Your task to perform on an android device: Empty the shopping cart on costco. Search for macbook air on costco, select the first entry, and add it to the cart. Image 0: 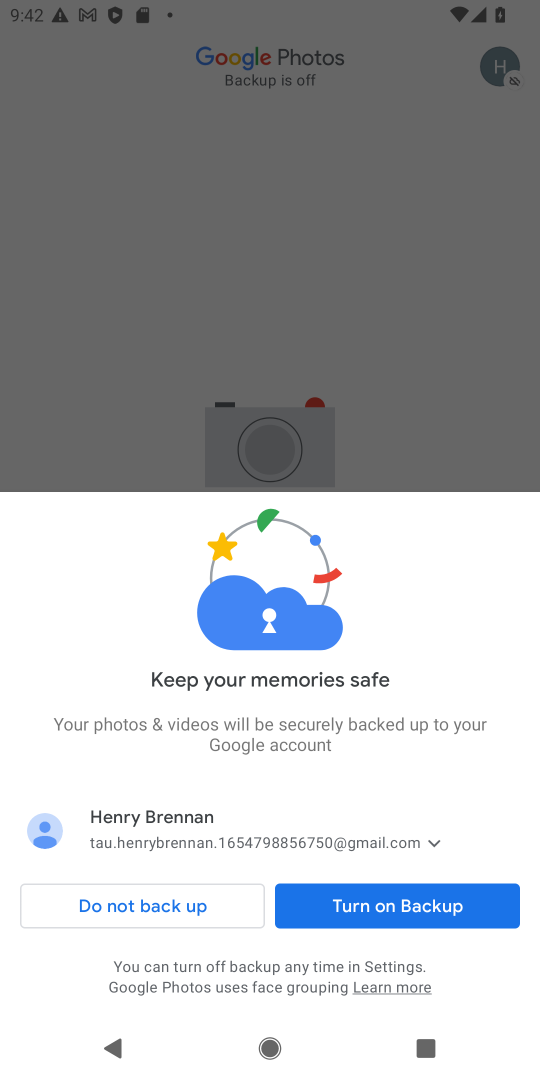
Step 0: press home button
Your task to perform on an android device: Empty the shopping cart on costco. Search for macbook air on costco, select the first entry, and add it to the cart. Image 1: 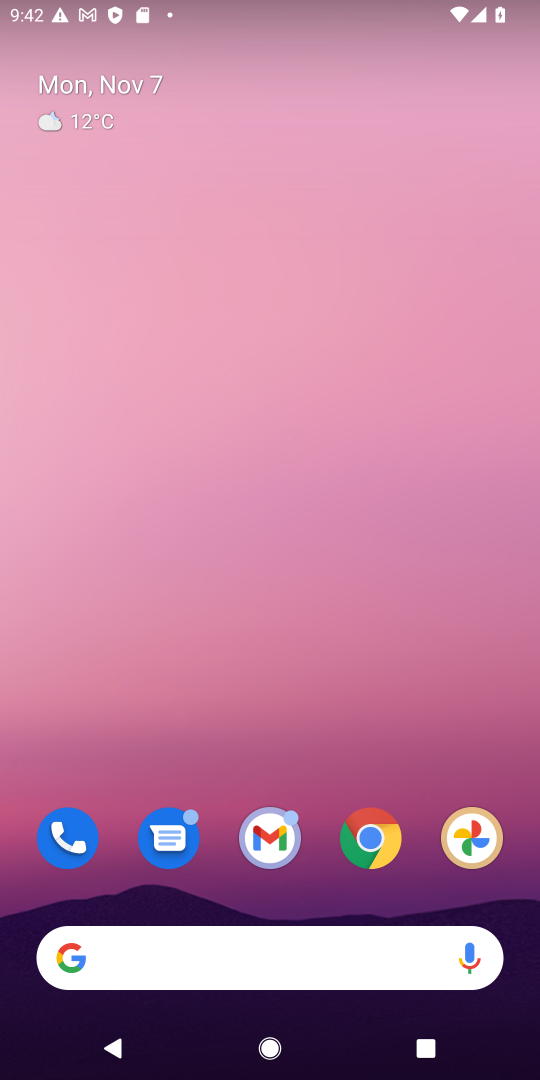
Step 1: click (354, 843)
Your task to perform on an android device: Empty the shopping cart on costco. Search for macbook air on costco, select the first entry, and add it to the cart. Image 2: 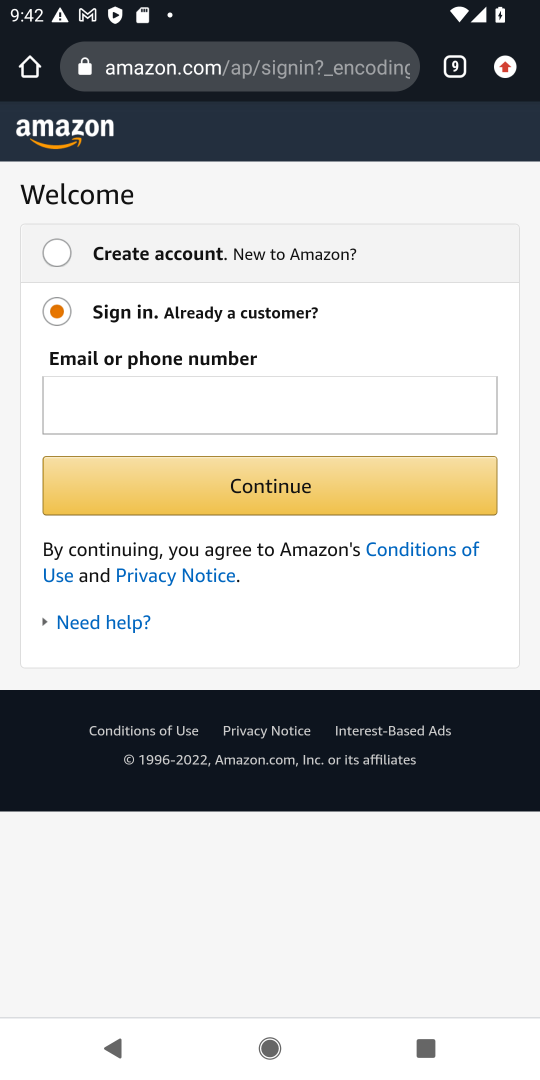
Step 2: click (453, 74)
Your task to perform on an android device: Empty the shopping cart on costco. Search for macbook air on costco, select the first entry, and add it to the cart. Image 3: 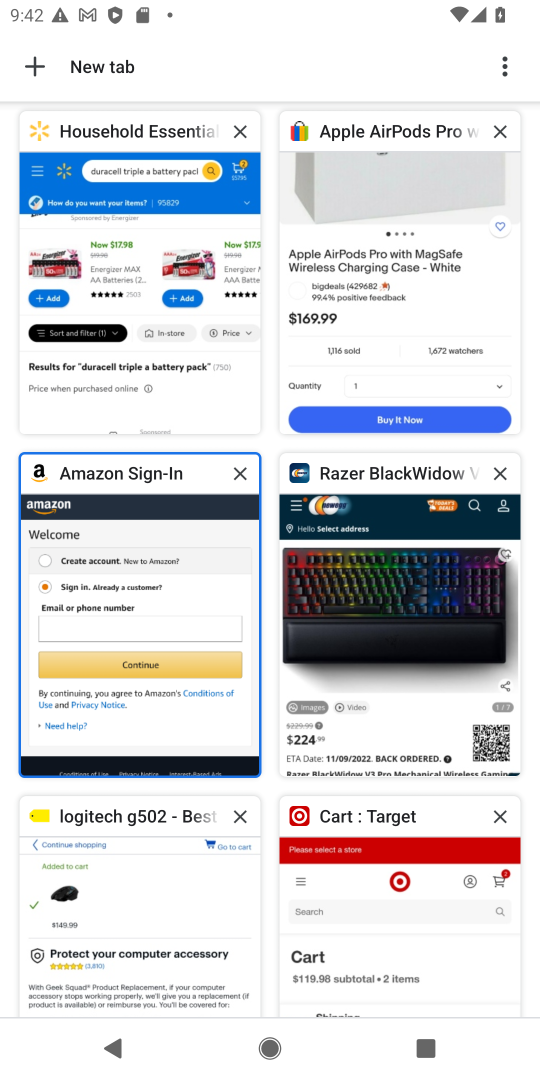
Step 3: drag from (334, 927) to (387, 249)
Your task to perform on an android device: Empty the shopping cart on costco. Search for macbook air on costco, select the first entry, and add it to the cart. Image 4: 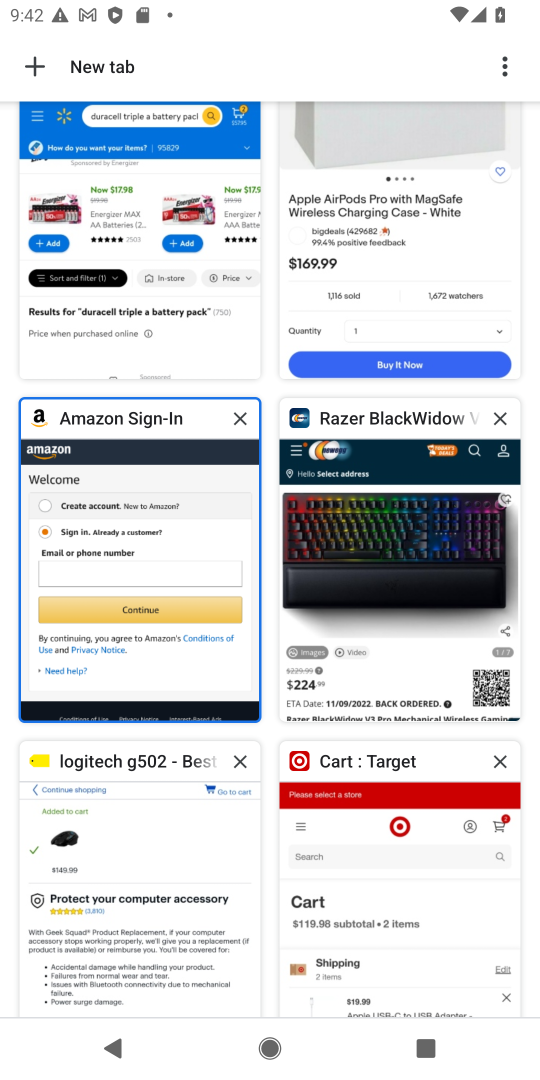
Step 4: drag from (338, 899) to (454, 144)
Your task to perform on an android device: Empty the shopping cart on costco. Search for macbook air on costco, select the first entry, and add it to the cart. Image 5: 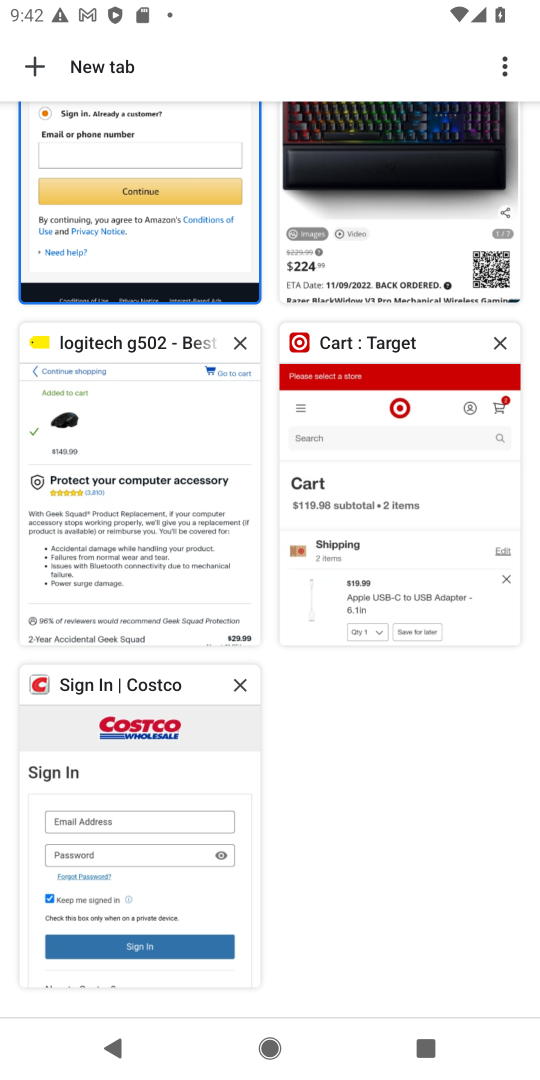
Step 5: click (155, 822)
Your task to perform on an android device: Empty the shopping cart on costco. Search for macbook air on costco, select the first entry, and add it to the cart. Image 6: 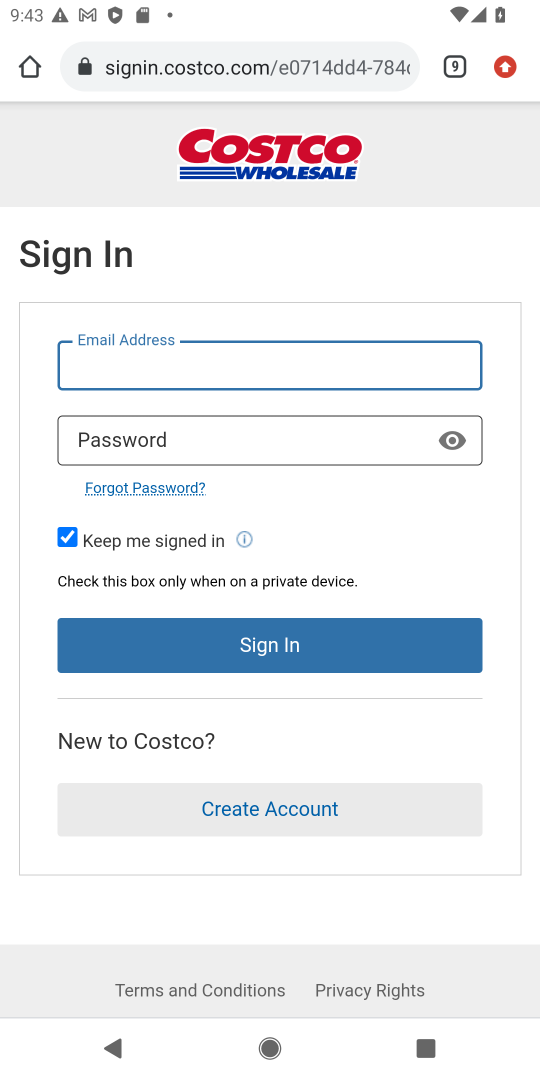
Step 6: press back button
Your task to perform on an android device: Empty the shopping cart on costco. Search for macbook air on costco, select the first entry, and add it to the cart. Image 7: 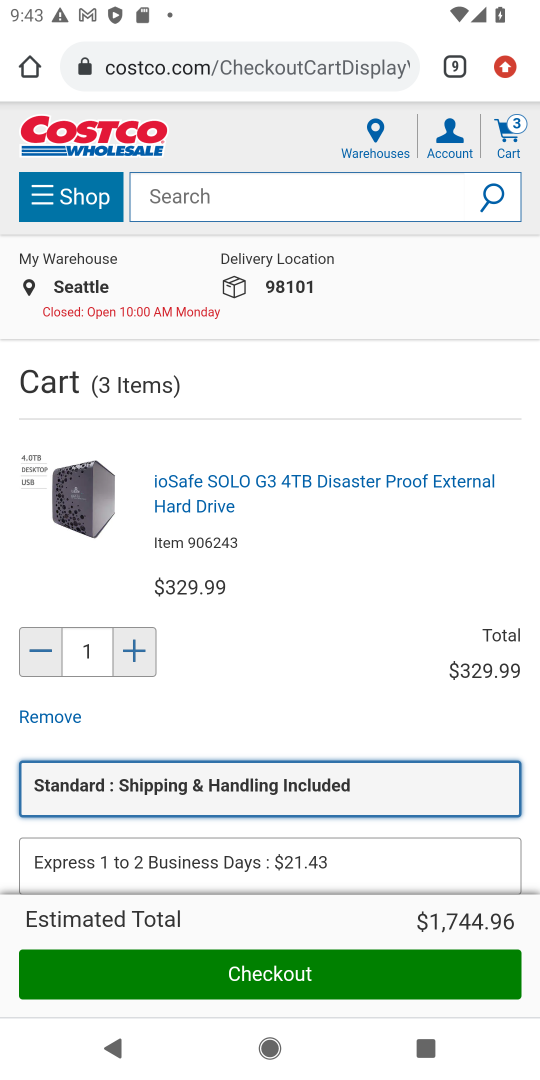
Step 7: click (58, 711)
Your task to perform on an android device: Empty the shopping cart on costco. Search for macbook air on costco, select the first entry, and add it to the cart. Image 8: 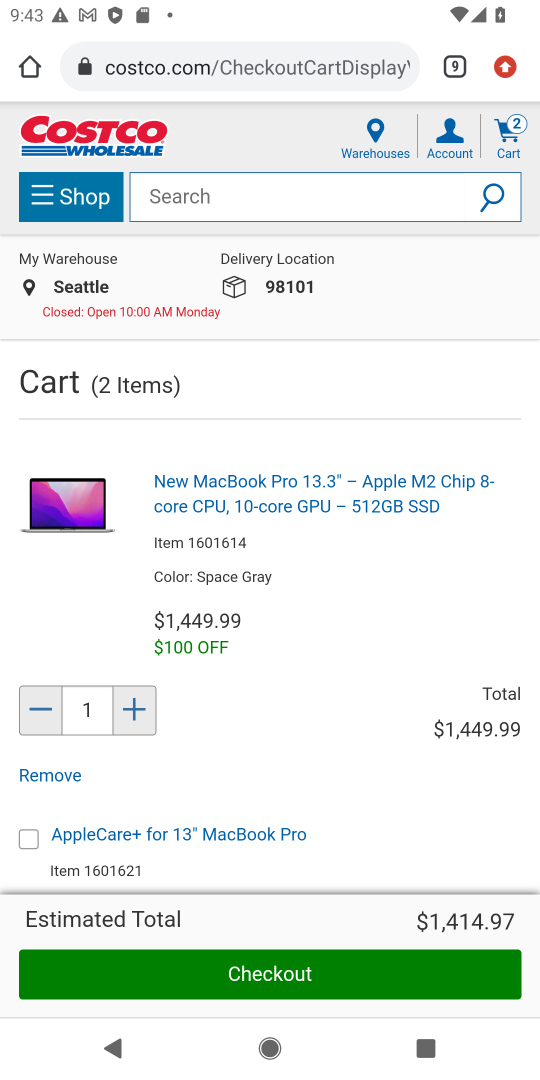
Step 8: click (56, 770)
Your task to perform on an android device: Empty the shopping cart on costco. Search for macbook air on costco, select the first entry, and add it to the cart. Image 9: 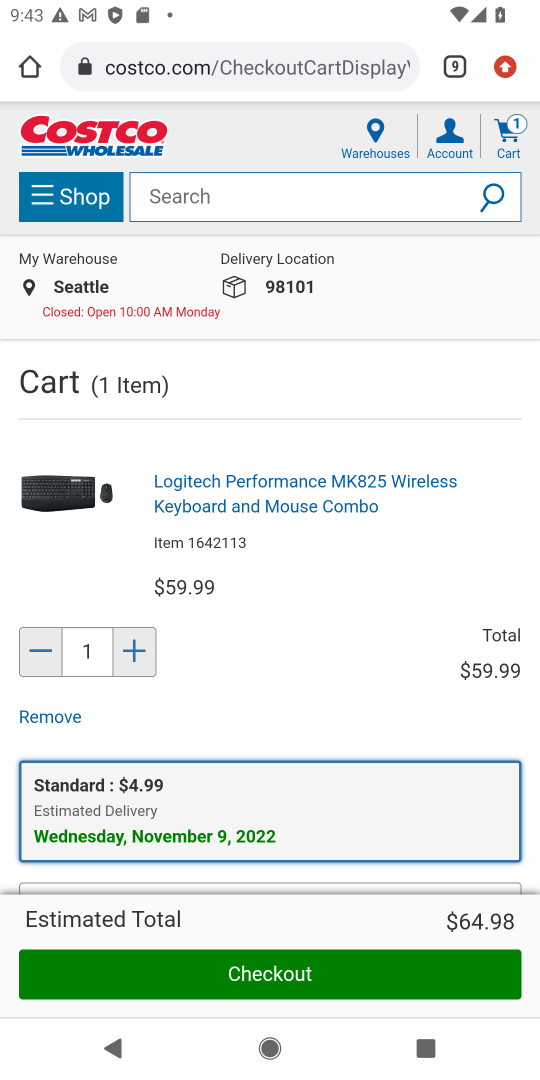
Step 9: click (56, 710)
Your task to perform on an android device: Empty the shopping cart on costco. Search for macbook air on costco, select the first entry, and add it to the cart. Image 10: 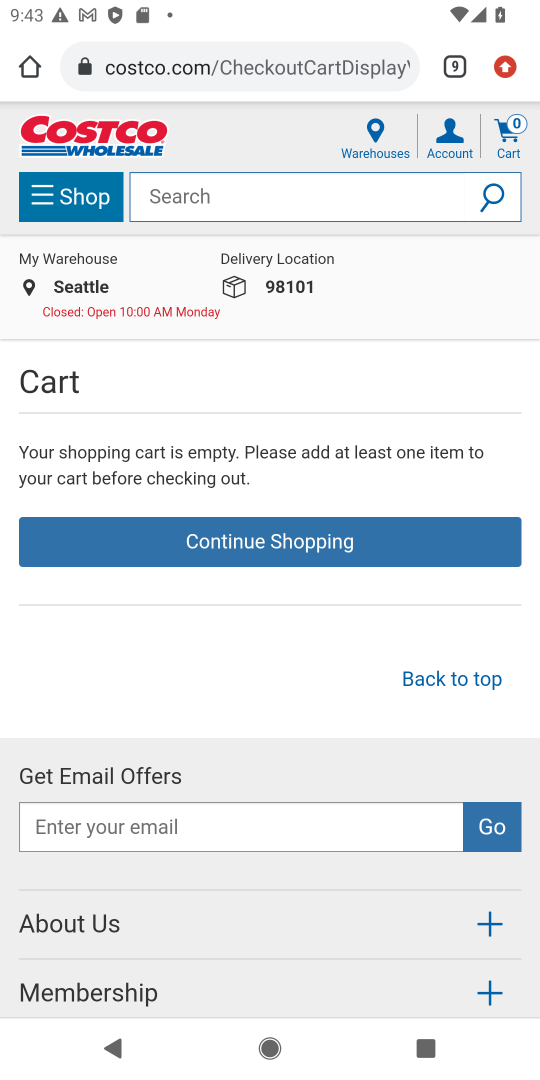
Step 10: click (280, 212)
Your task to perform on an android device: Empty the shopping cart on costco. Search for macbook air on costco, select the first entry, and add it to the cart. Image 11: 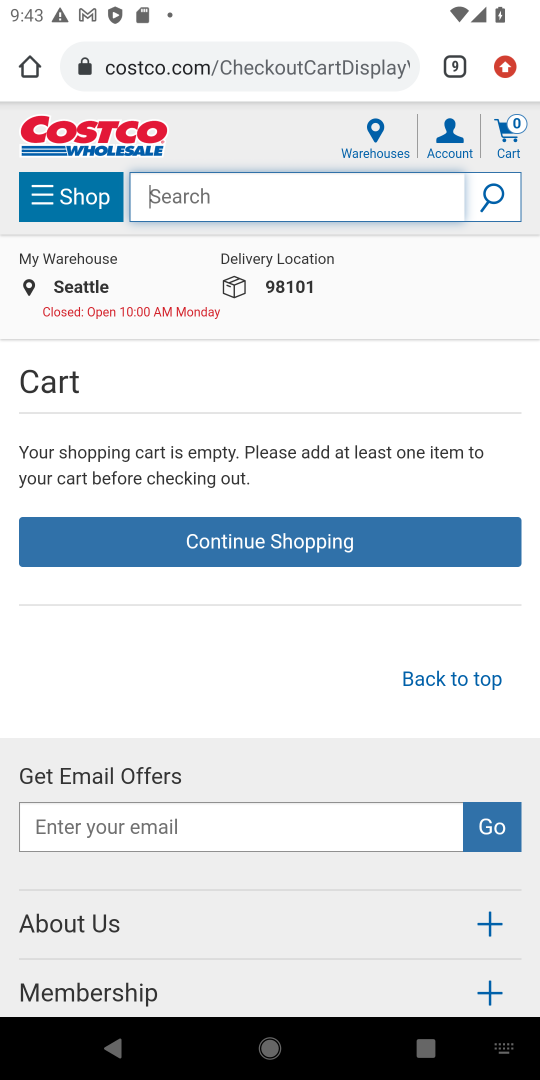
Step 11: type "macbook air"
Your task to perform on an android device: Empty the shopping cart on costco. Search for macbook air on costco, select the first entry, and add it to the cart. Image 12: 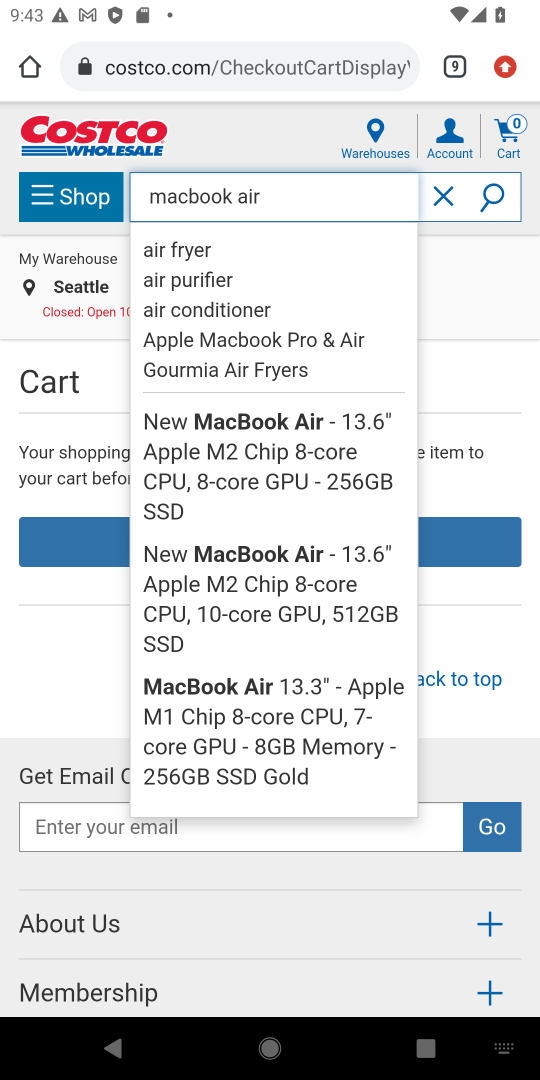
Step 12: click (311, 440)
Your task to perform on an android device: Empty the shopping cart on costco. Search for macbook air on costco, select the first entry, and add it to the cart. Image 13: 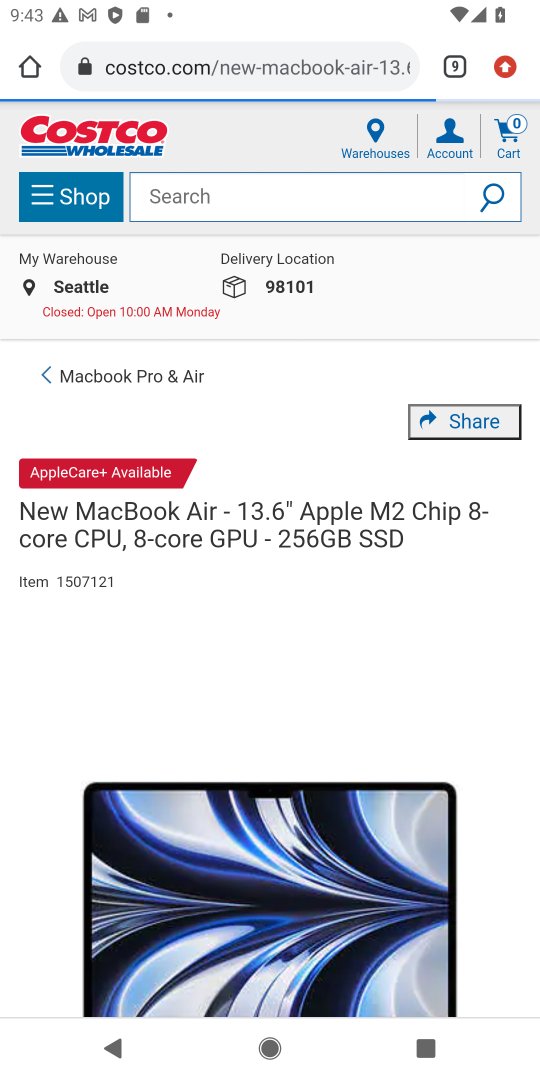
Step 13: drag from (354, 820) to (399, 206)
Your task to perform on an android device: Empty the shopping cart on costco. Search for macbook air on costco, select the first entry, and add it to the cart. Image 14: 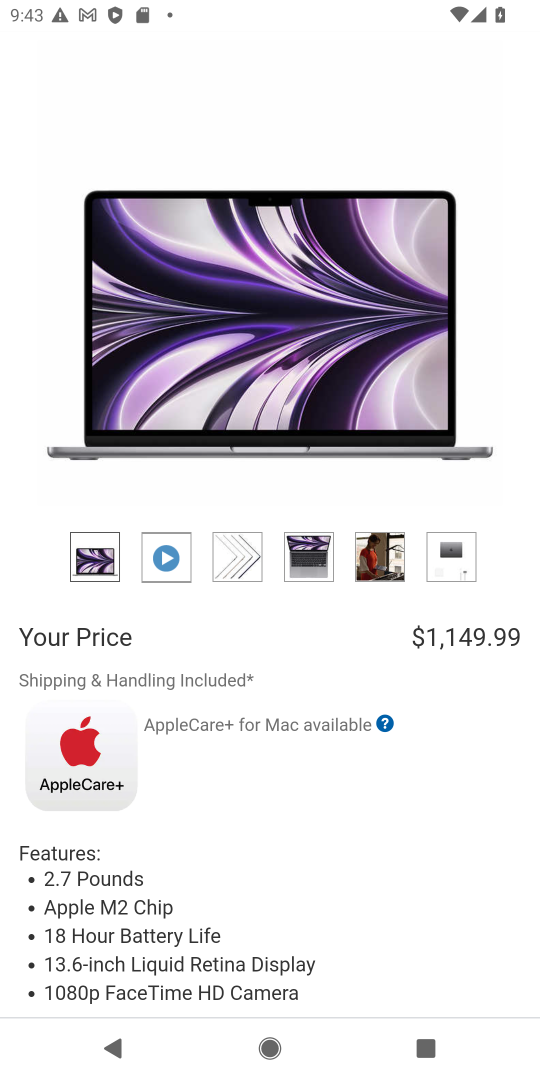
Step 14: drag from (314, 660) to (382, 227)
Your task to perform on an android device: Empty the shopping cart on costco. Search for macbook air on costco, select the first entry, and add it to the cart. Image 15: 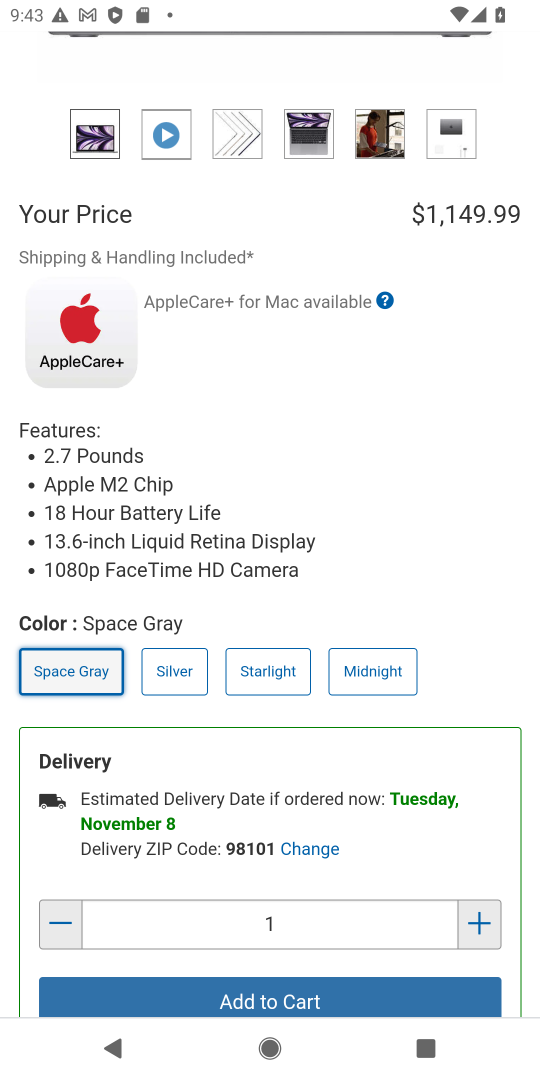
Step 15: drag from (263, 973) to (334, 425)
Your task to perform on an android device: Empty the shopping cart on costco. Search for macbook air on costco, select the first entry, and add it to the cart. Image 16: 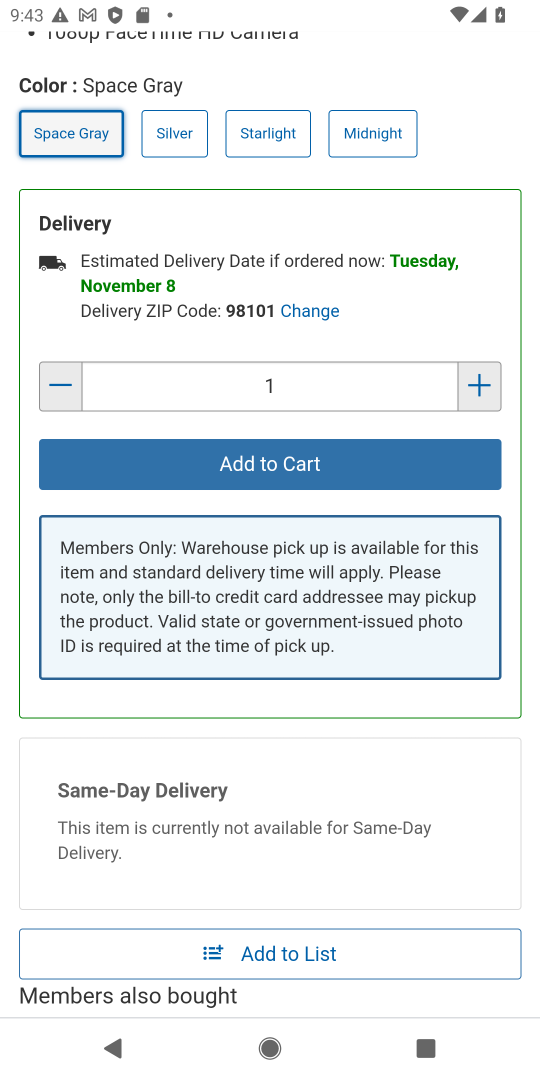
Step 16: click (325, 465)
Your task to perform on an android device: Empty the shopping cart on costco. Search for macbook air on costco, select the first entry, and add it to the cart. Image 17: 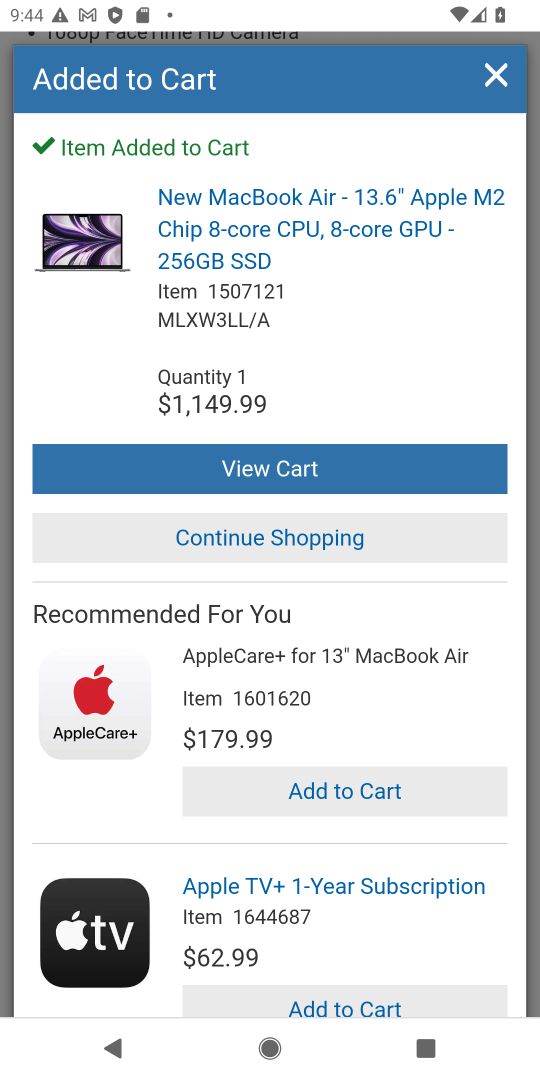
Step 17: task complete